Your task to perform on an android device: Open the Play Movies app and select the watchlist tab. Image 0: 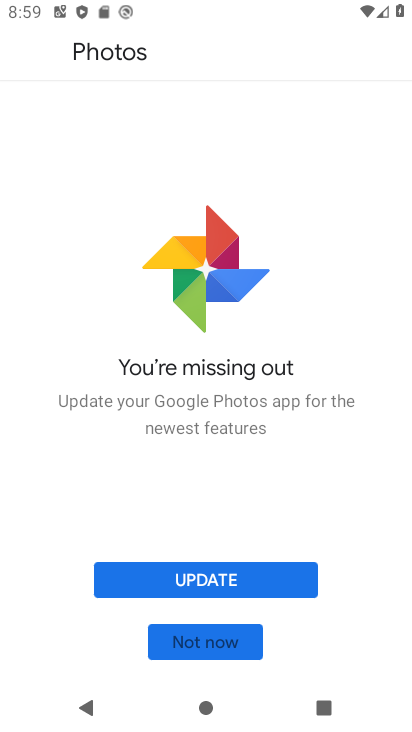
Step 0: press home button
Your task to perform on an android device: Open the Play Movies app and select the watchlist tab. Image 1: 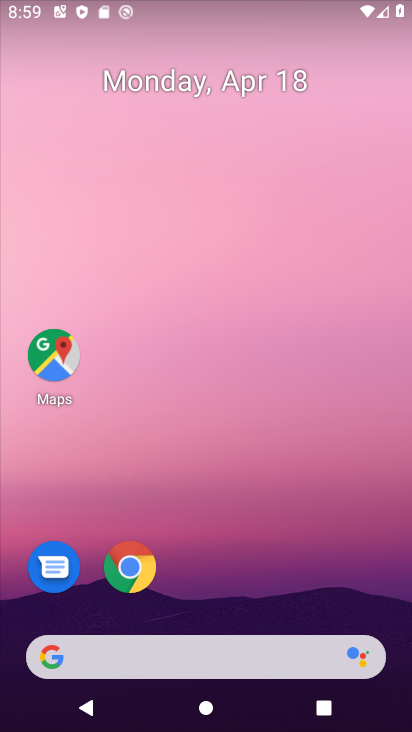
Step 1: drag from (199, 470) to (216, 76)
Your task to perform on an android device: Open the Play Movies app and select the watchlist tab. Image 2: 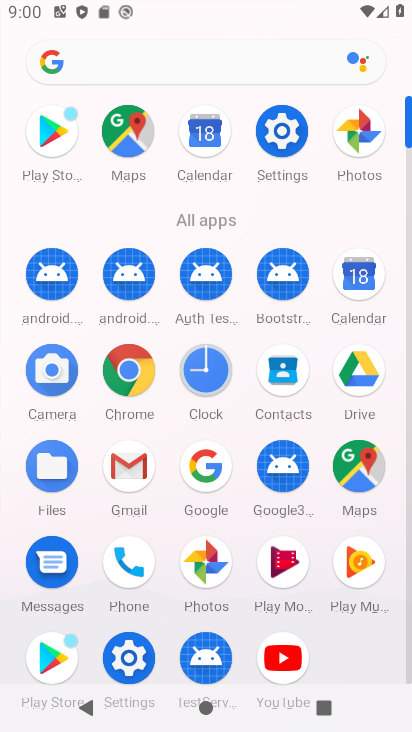
Step 2: click (275, 558)
Your task to perform on an android device: Open the Play Movies app and select the watchlist tab. Image 3: 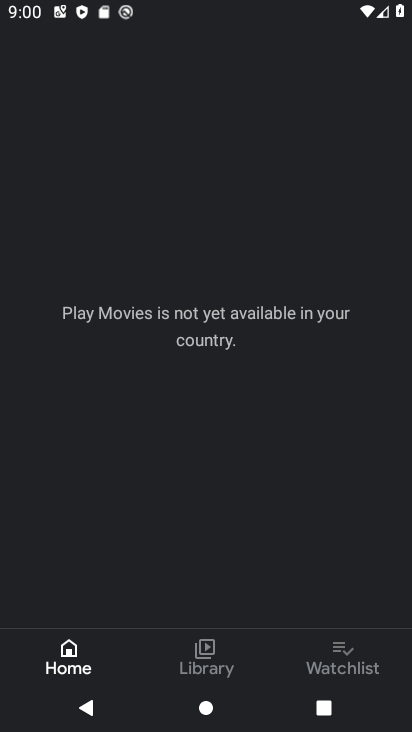
Step 3: click (346, 669)
Your task to perform on an android device: Open the Play Movies app and select the watchlist tab. Image 4: 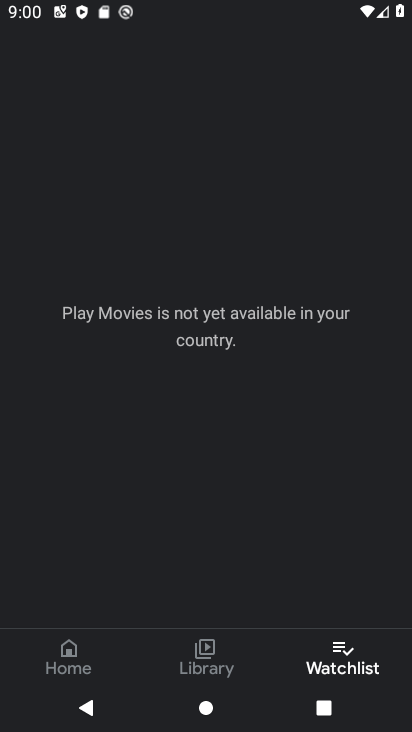
Step 4: task complete